Your task to perform on an android device: Go to notification settings Image 0: 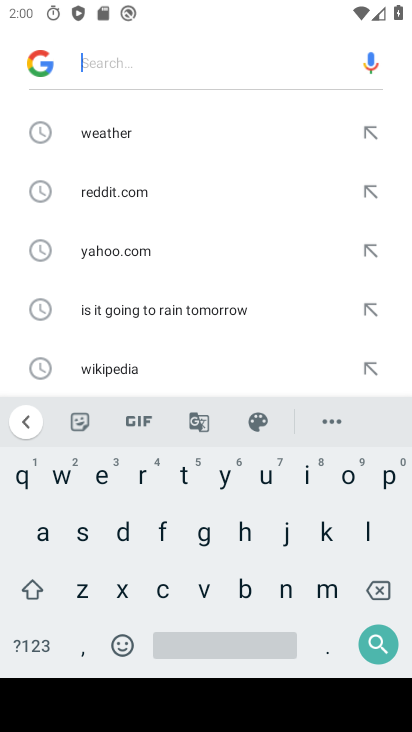
Step 0: press home button
Your task to perform on an android device: Go to notification settings Image 1: 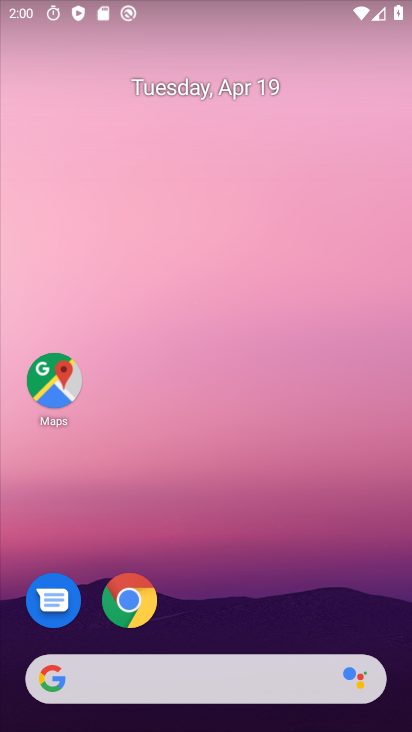
Step 1: drag from (280, 671) to (283, 325)
Your task to perform on an android device: Go to notification settings Image 2: 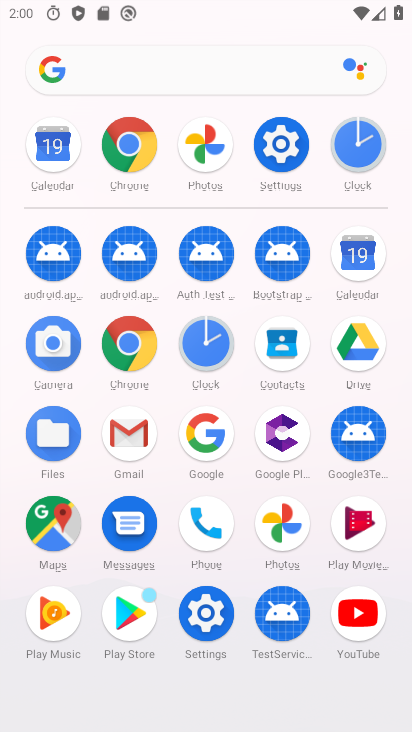
Step 2: click (198, 628)
Your task to perform on an android device: Go to notification settings Image 3: 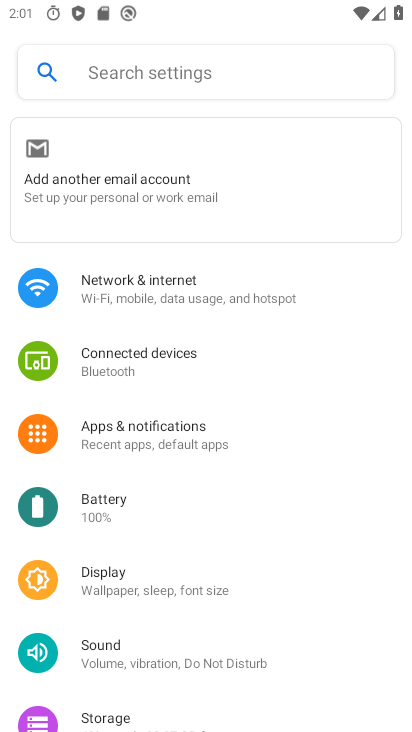
Step 3: click (164, 84)
Your task to perform on an android device: Go to notification settings Image 4: 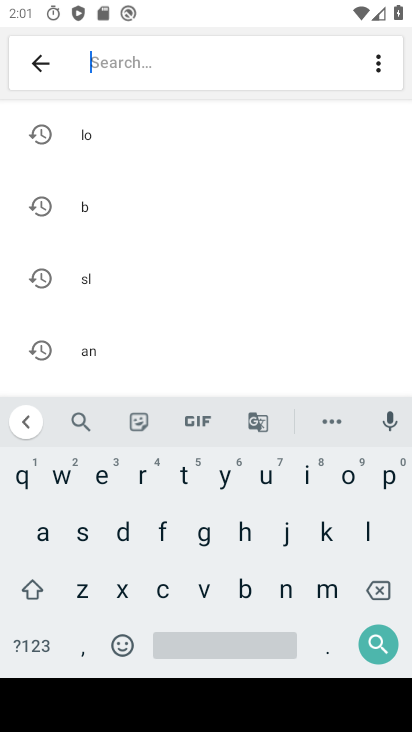
Step 4: click (290, 588)
Your task to perform on an android device: Go to notification settings Image 5: 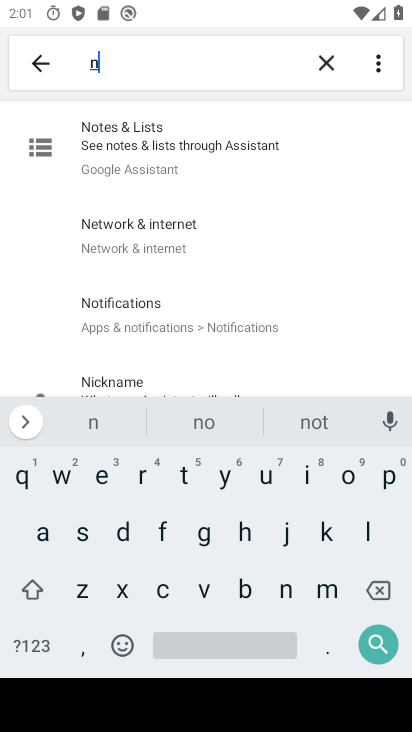
Step 5: click (349, 484)
Your task to perform on an android device: Go to notification settings Image 6: 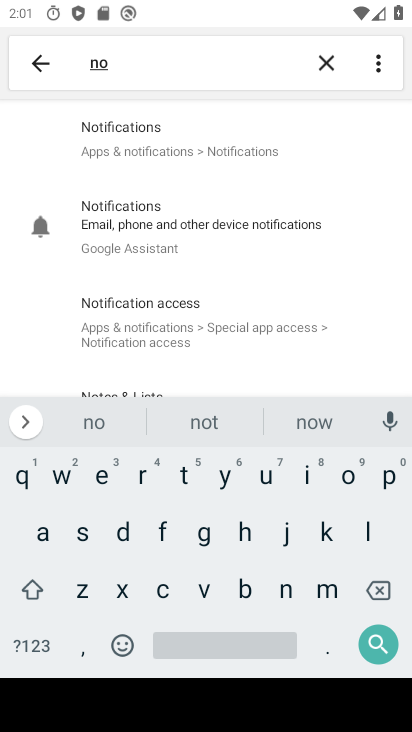
Step 6: click (207, 161)
Your task to perform on an android device: Go to notification settings Image 7: 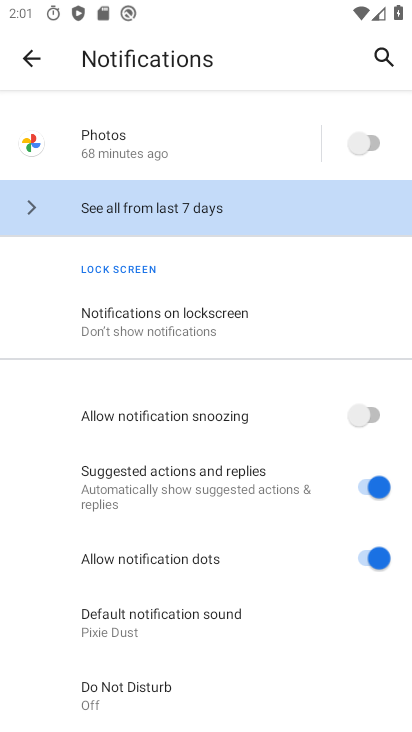
Step 7: task complete